Your task to perform on an android device: Go to wifi settings Image 0: 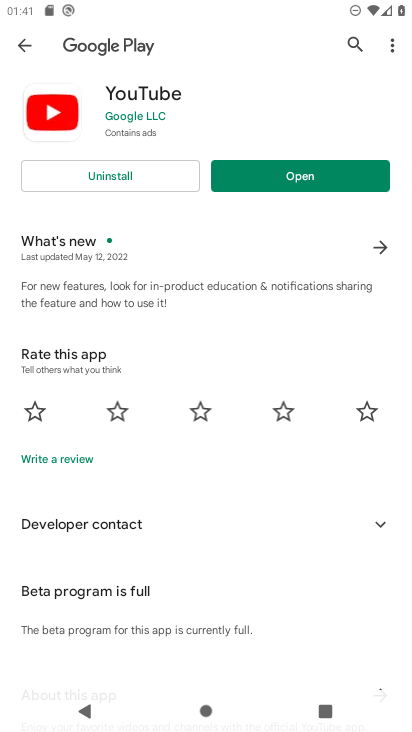
Step 0: press home button
Your task to perform on an android device: Go to wifi settings Image 1: 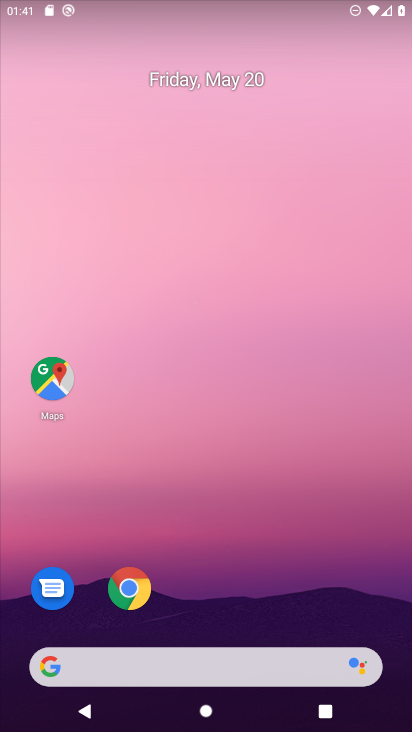
Step 1: drag from (381, 614) to (303, 42)
Your task to perform on an android device: Go to wifi settings Image 2: 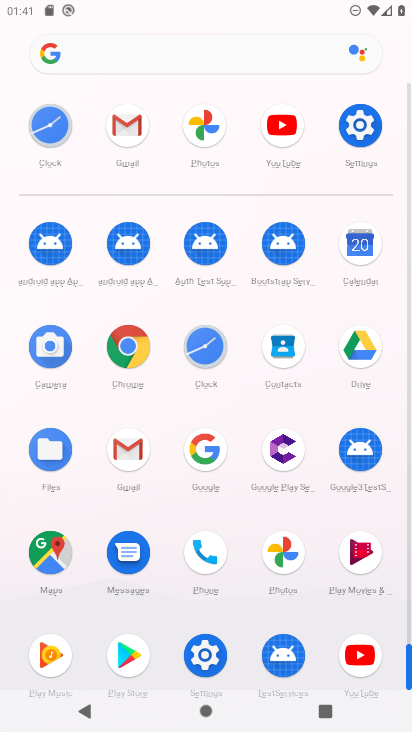
Step 2: click (201, 652)
Your task to perform on an android device: Go to wifi settings Image 3: 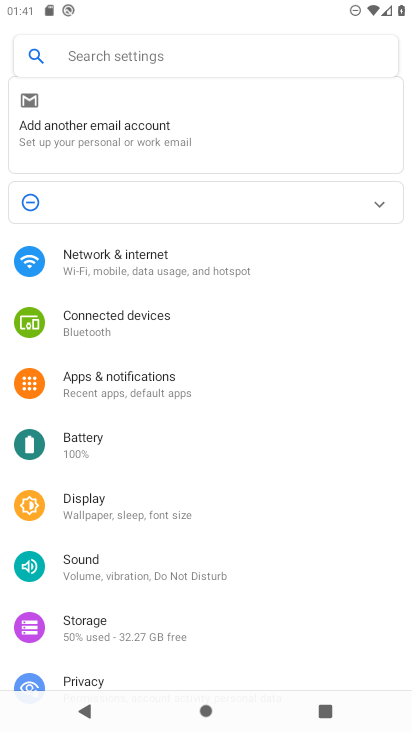
Step 3: click (95, 248)
Your task to perform on an android device: Go to wifi settings Image 4: 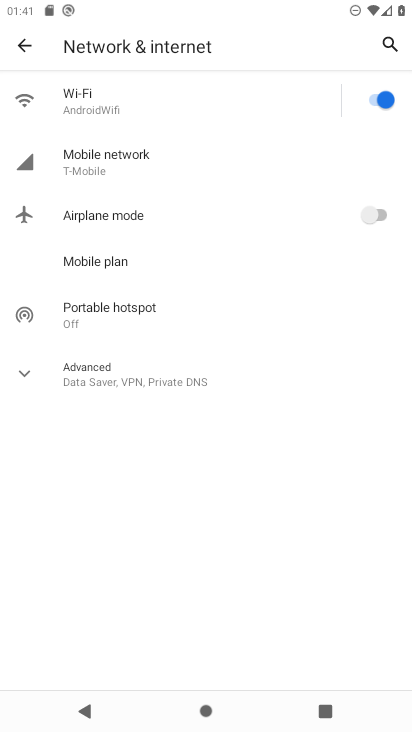
Step 4: click (72, 95)
Your task to perform on an android device: Go to wifi settings Image 5: 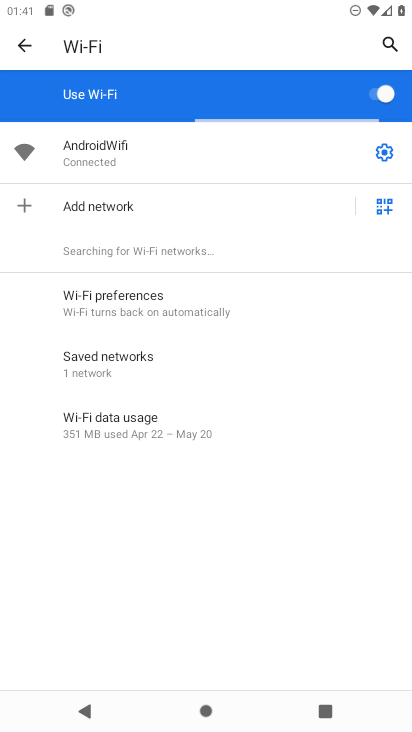
Step 5: click (384, 152)
Your task to perform on an android device: Go to wifi settings Image 6: 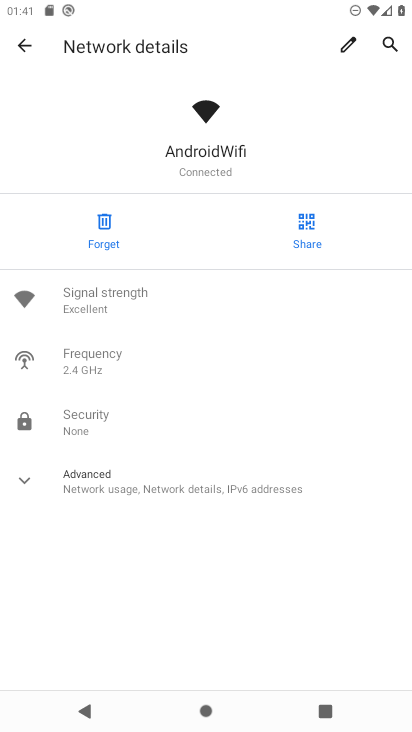
Step 6: click (27, 484)
Your task to perform on an android device: Go to wifi settings Image 7: 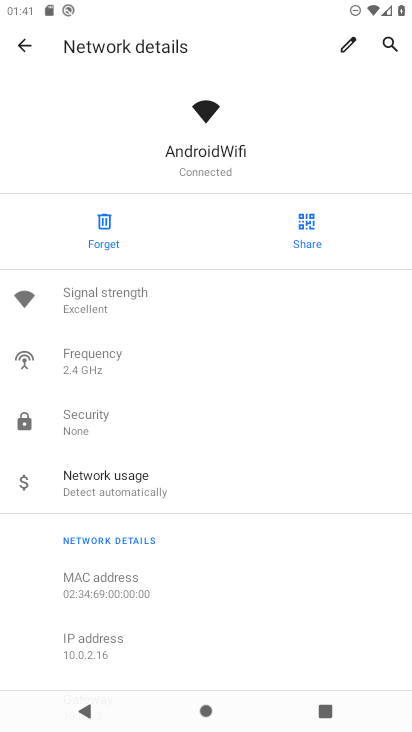
Step 7: task complete